Your task to perform on an android device: Go to settings Image 0: 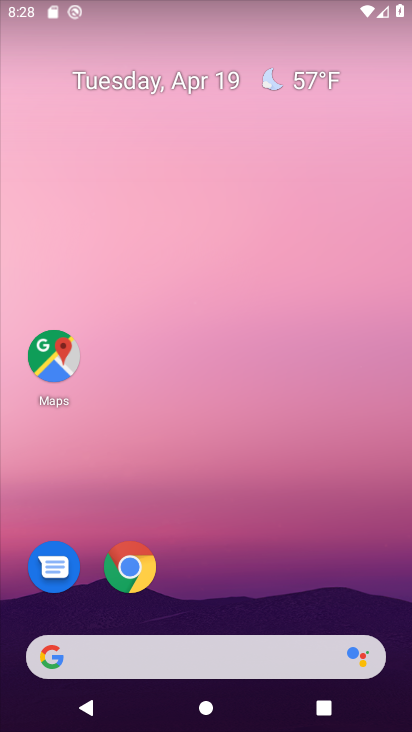
Step 0: drag from (284, 527) to (399, 11)
Your task to perform on an android device: Go to settings Image 1: 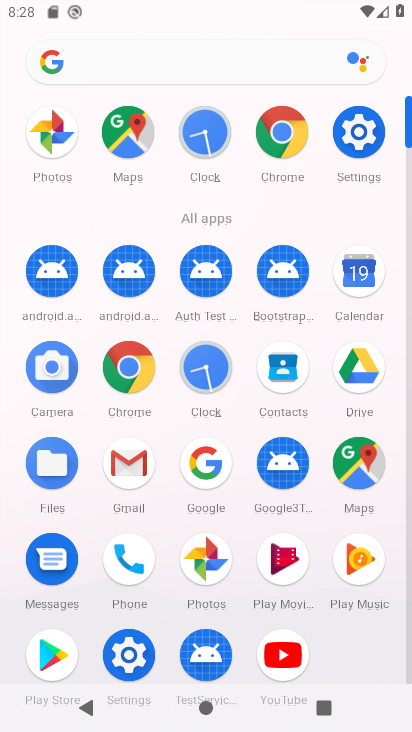
Step 1: click (370, 131)
Your task to perform on an android device: Go to settings Image 2: 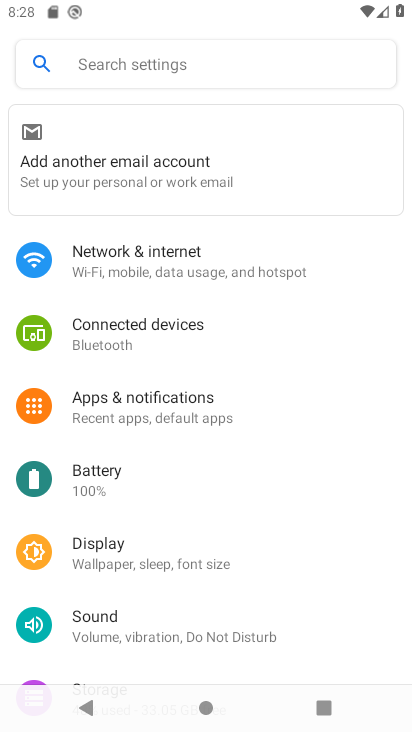
Step 2: task complete